Your task to perform on an android device: Open Amazon Image 0: 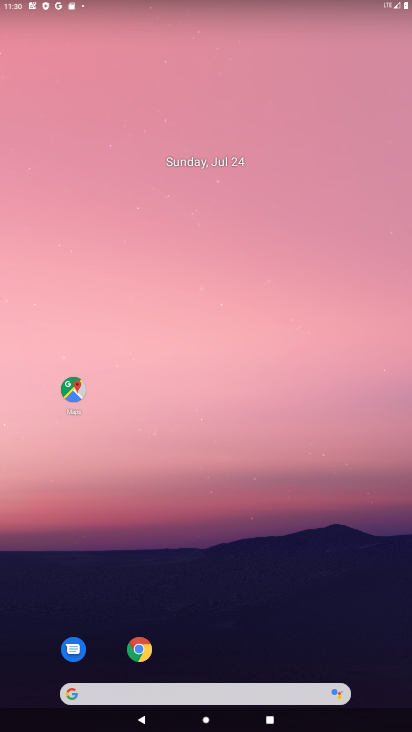
Step 0: press home button
Your task to perform on an android device: Open Amazon Image 1: 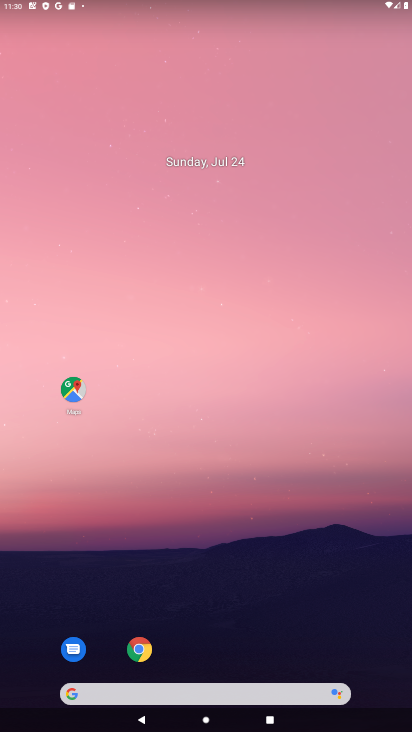
Step 1: click (137, 645)
Your task to perform on an android device: Open Amazon Image 2: 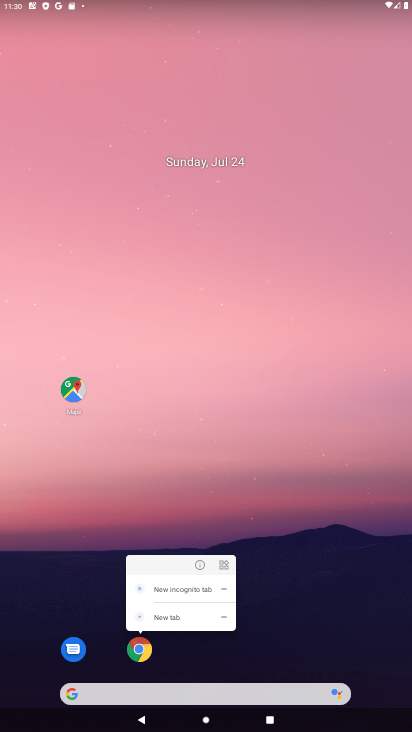
Step 2: click (135, 642)
Your task to perform on an android device: Open Amazon Image 3: 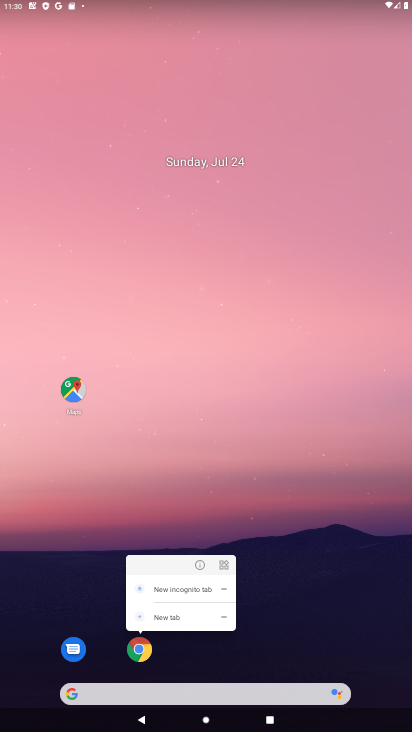
Step 3: click (136, 647)
Your task to perform on an android device: Open Amazon Image 4: 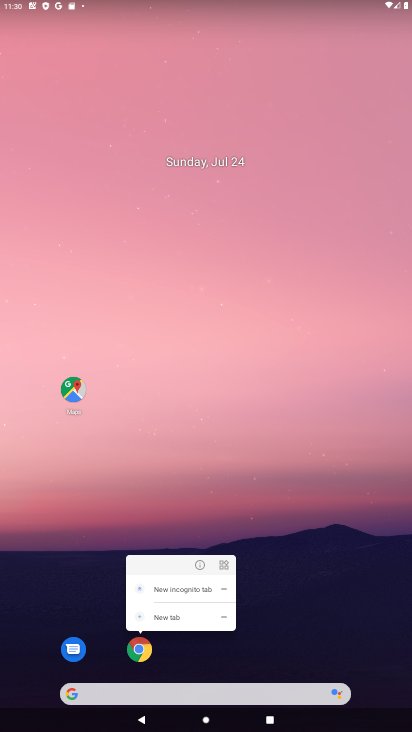
Step 4: click (141, 649)
Your task to perform on an android device: Open Amazon Image 5: 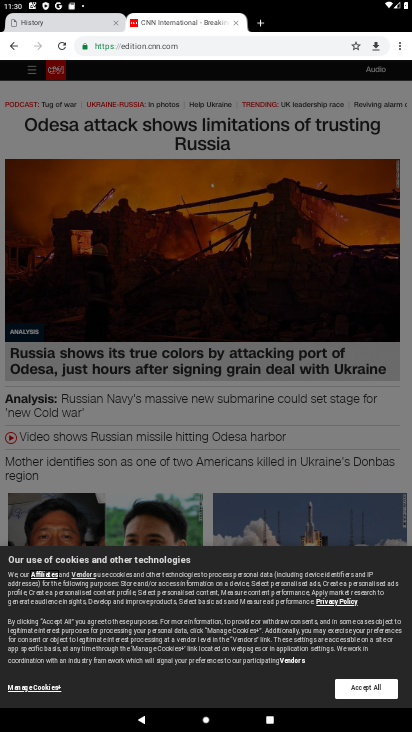
Step 5: click (364, 684)
Your task to perform on an android device: Open Amazon Image 6: 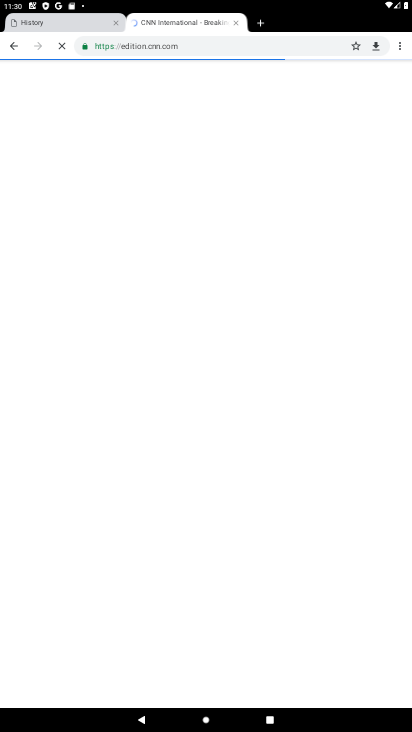
Step 6: click (260, 15)
Your task to perform on an android device: Open Amazon Image 7: 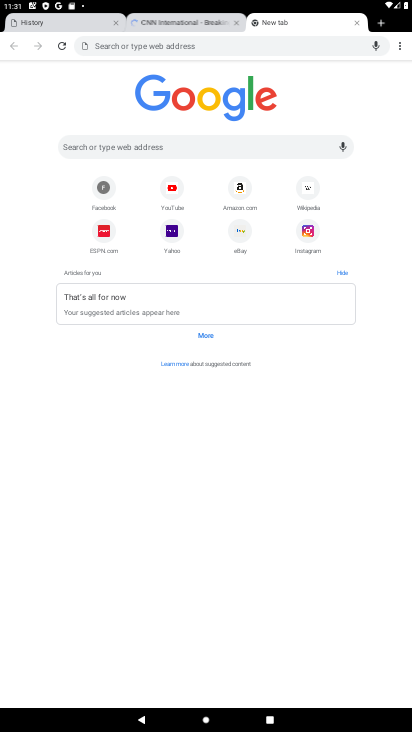
Step 7: click (236, 185)
Your task to perform on an android device: Open Amazon Image 8: 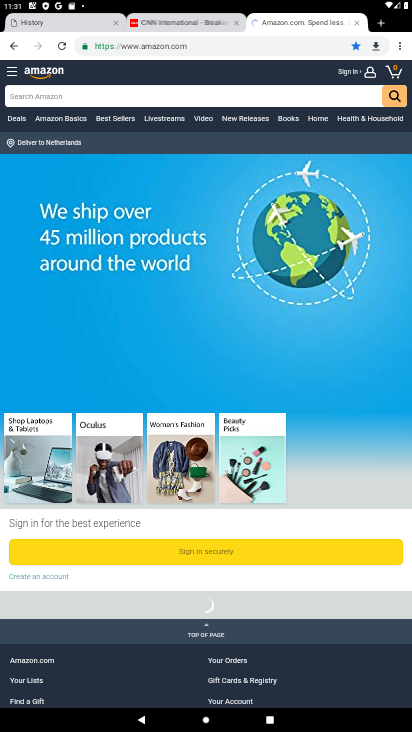
Step 8: task complete